Your task to perform on an android device: Show me the alarms in the clock app Image 0: 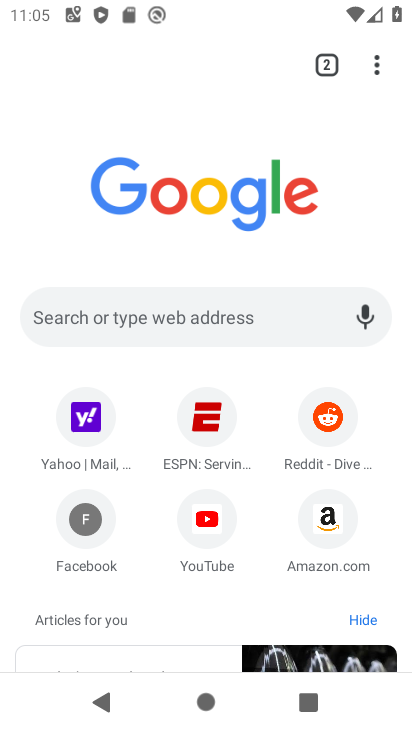
Step 0: press home button
Your task to perform on an android device: Show me the alarms in the clock app Image 1: 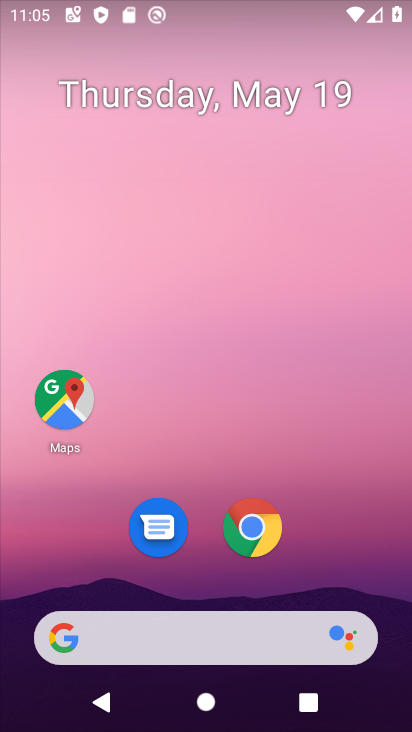
Step 1: drag from (210, 572) to (321, 54)
Your task to perform on an android device: Show me the alarms in the clock app Image 2: 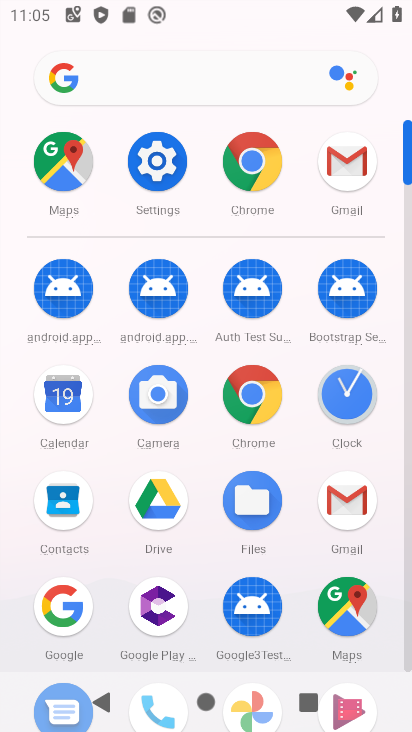
Step 2: click (342, 388)
Your task to perform on an android device: Show me the alarms in the clock app Image 3: 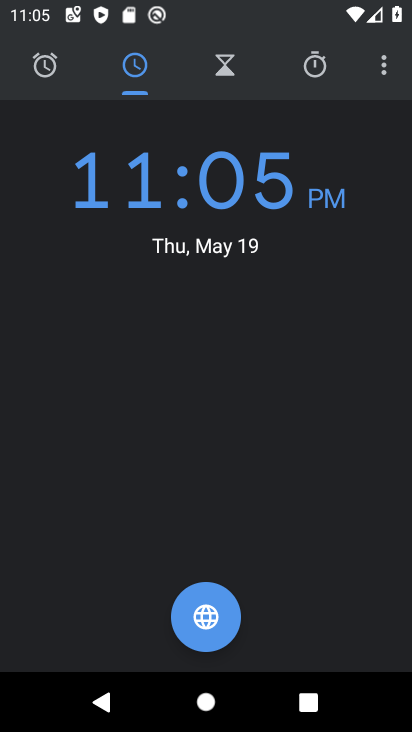
Step 3: click (56, 71)
Your task to perform on an android device: Show me the alarms in the clock app Image 4: 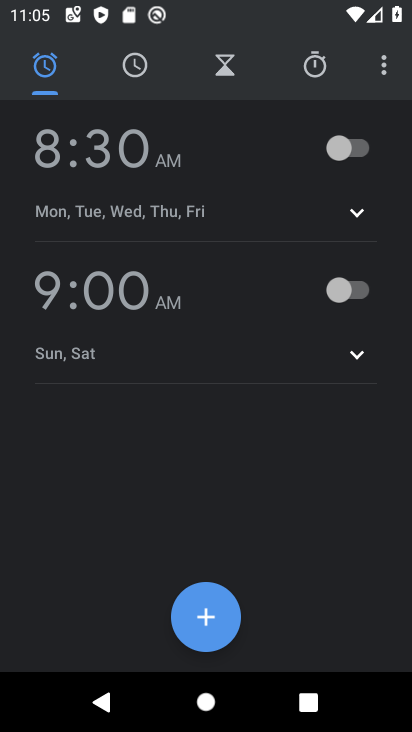
Step 4: task complete